Your task to perform on an android device: turn pop-ups off in chrome Image 0: 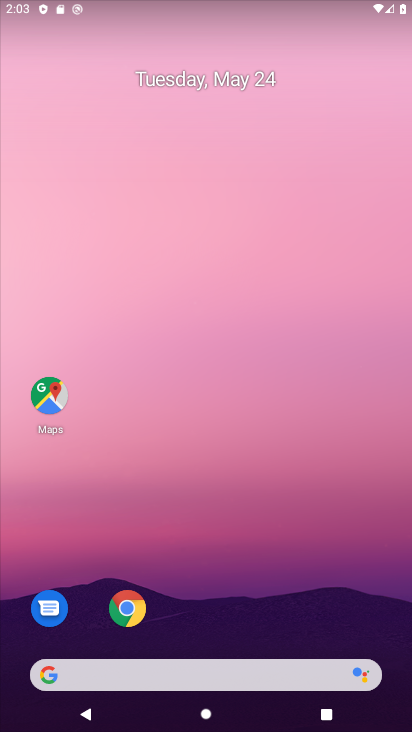
Step 0: drag from (225, 560) to (225, 17)
Your task to perform on an android device: turn pop-ups off in chrome Image 1: 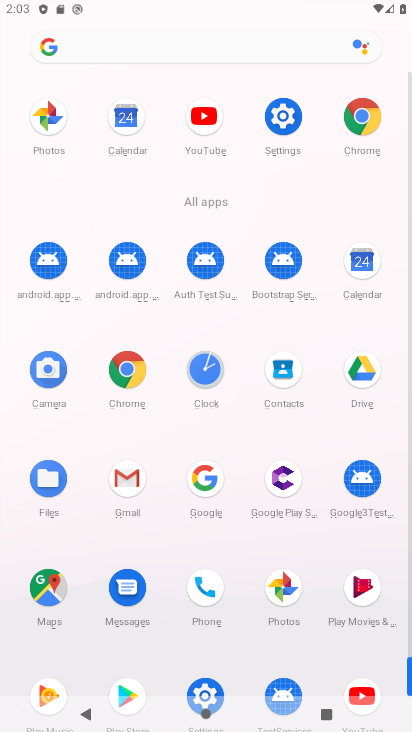
Step 1: drag from (16, 543) to (14, 193)
Your task to perform on an android device: turn pop-ups off in chrome Image 2: 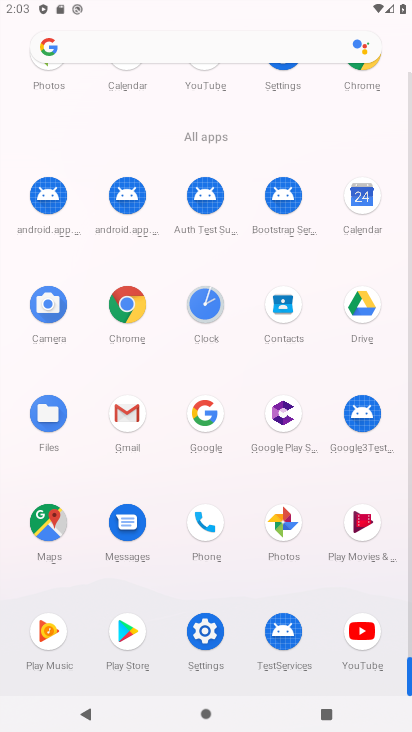
Step 2: click (122, 301)
Your task to perform on an android device: turn pop-ups off in chrome Image 3: 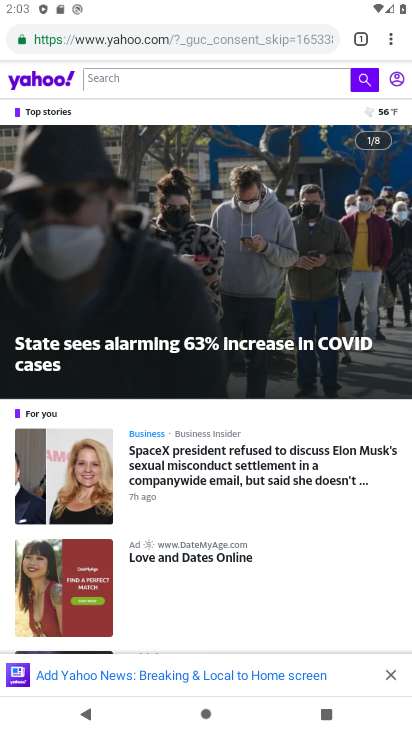
Step 3: drag from (392, 42) to (262, 466)
Your task to perform on an android device: turn pop-ups off in chrome Image 4: 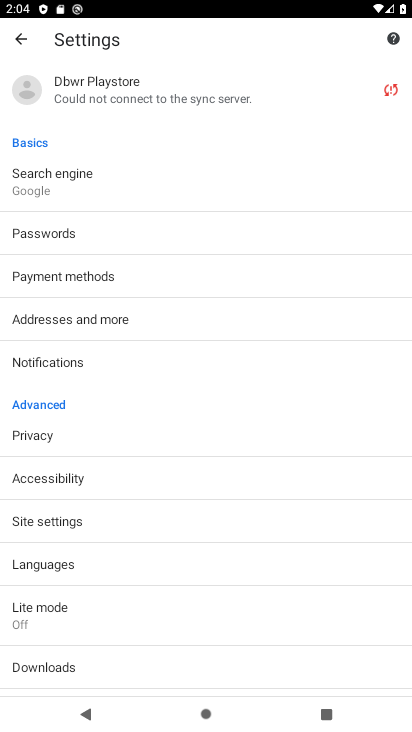
Step 4: drag from (189, 564) to (200, 194)
Your task to perform on an android device: turn pop-ups off in chrome Image 5: 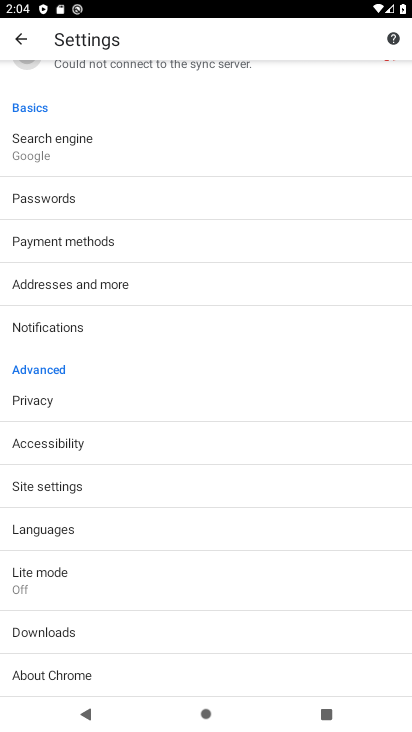
Step 5: click (90, 481)
Your task to perform on an android device: turn pop-ups off in chrome Image 6: 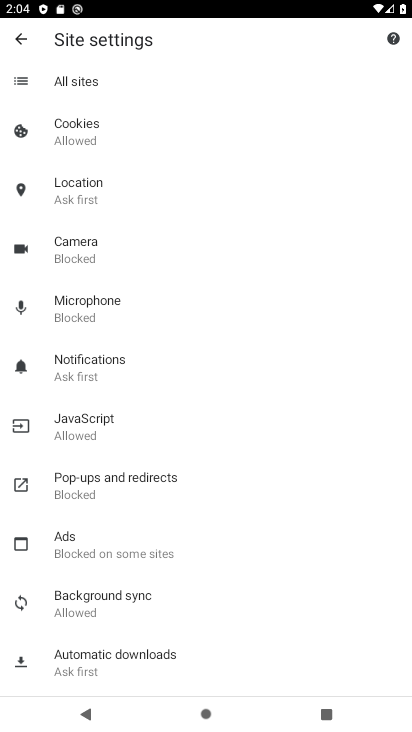
Step 6: click (105, 490)
Your task to perform on an android device: turn pop-ups off in chrome Image 7: 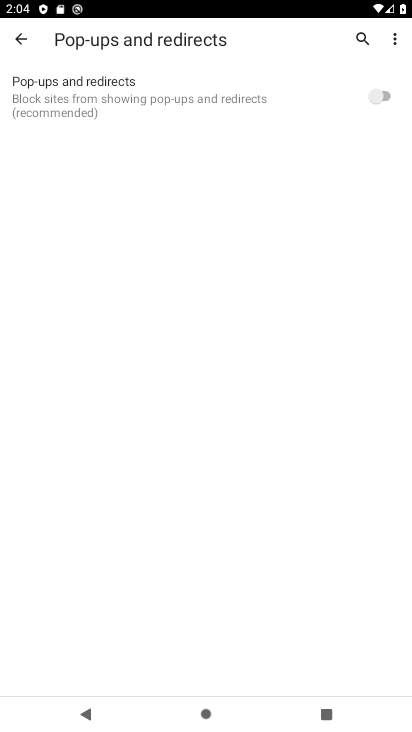
Step 7: task complete